Your task to perform on an android device: Go to ESPN.com Image 0: 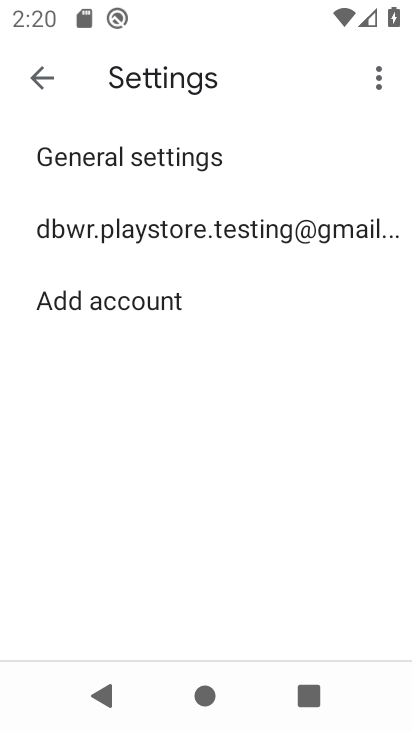
Step 0: press home button
Your task to perform on an android device: Go to ESPN.com Image 1: 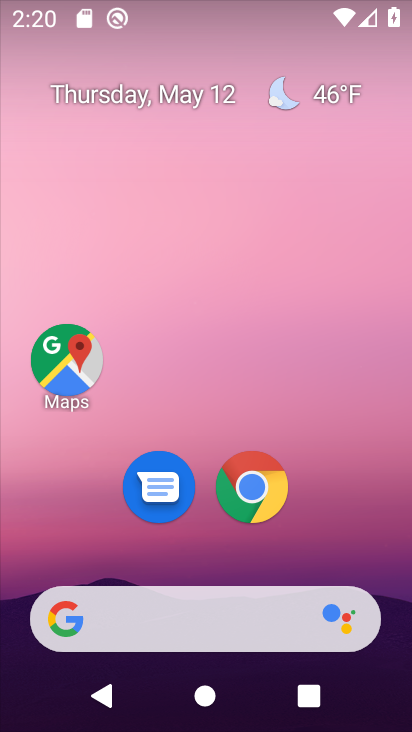
Step 1: click (244, 493)
Your task to perform on an android device: Go to ESPN.com Image 2: 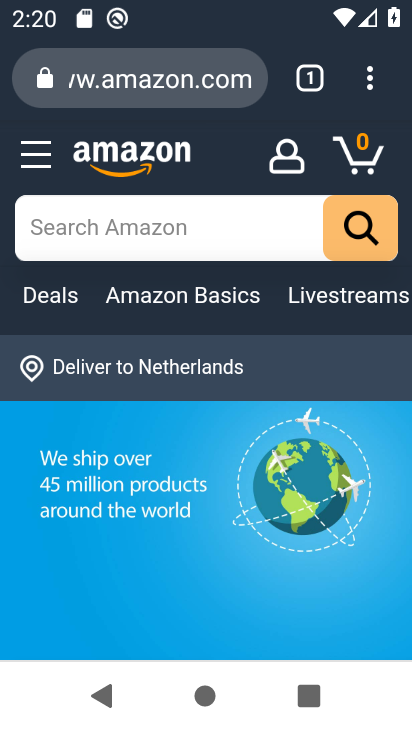
Step 2: click (117, 72)
Your task to perform on an android device: Go to ESPN.com Image 3: 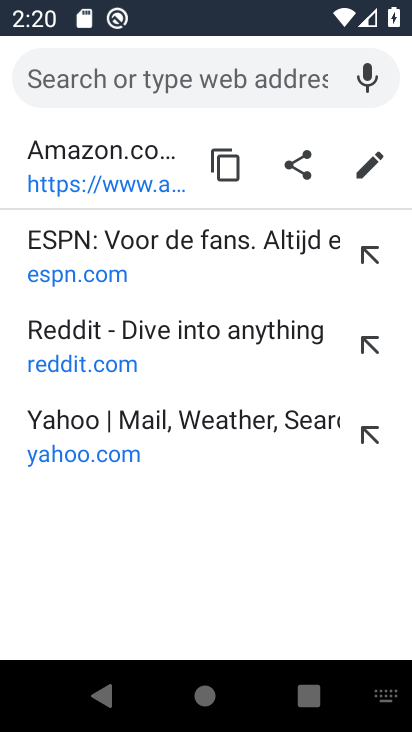
Step 3: type "ESPN.com"
Your task to perform on an android device: Go to ESPN.com Image 4: 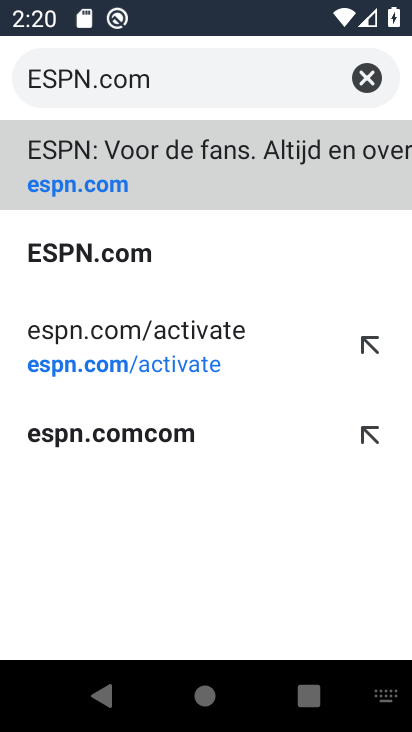
Step 4: click (196, 137)
Your task to perform on an android device: Go to ESPN.com Image 5: 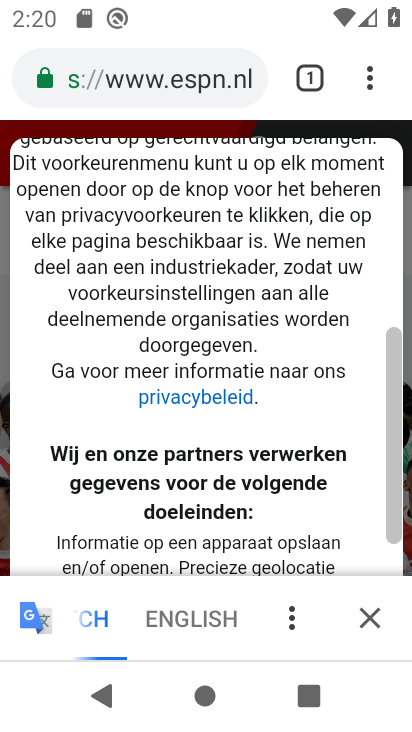
Step 5: task complete